Your task to perform on an android device: toggle notification dots Image 0: 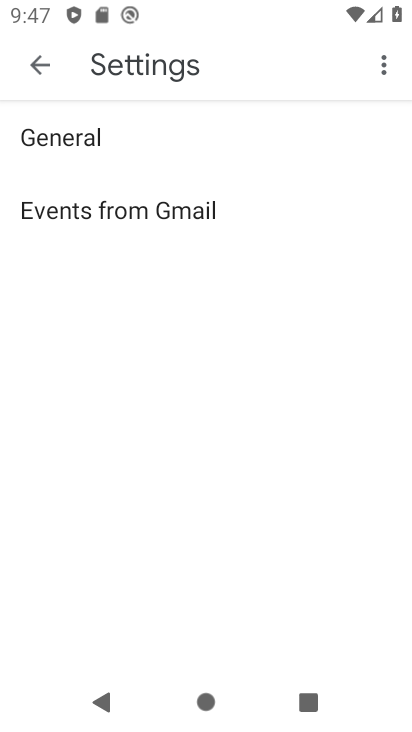
Step 0: press home button
Your task to perform on an android device: toggle notification dots Image 1: 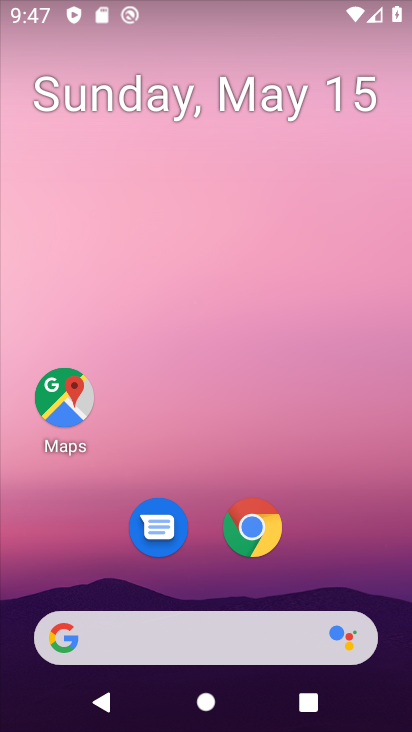
Step 1: drag from (157, 611) to (259, 141)
Your task to perform on an android device: toggle notification dots Image 2: 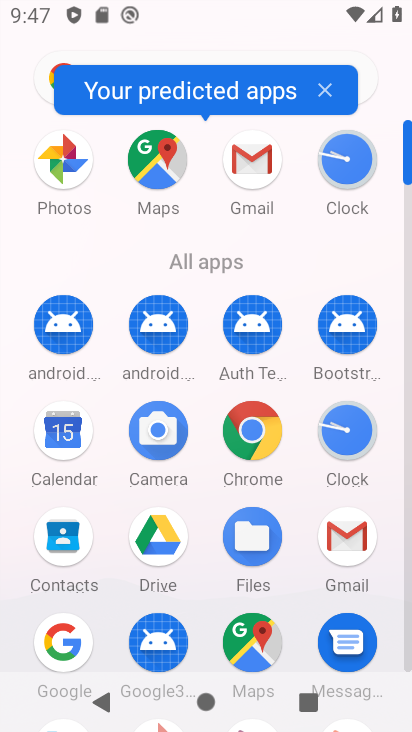
Step 2: drag from (253, 621) to (258, 412)
Your task to perform on an android device: toggle notification dots Image 3: 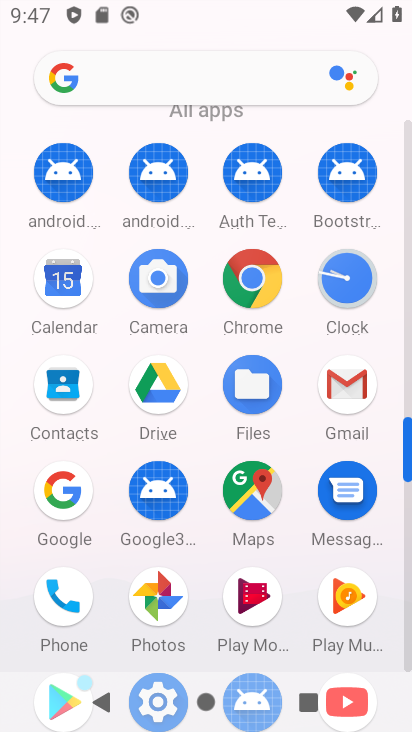
Step 3: drag from (186, 648) to (223, 475)
Your task to perform on an android device: toggle notification dots Image 4: 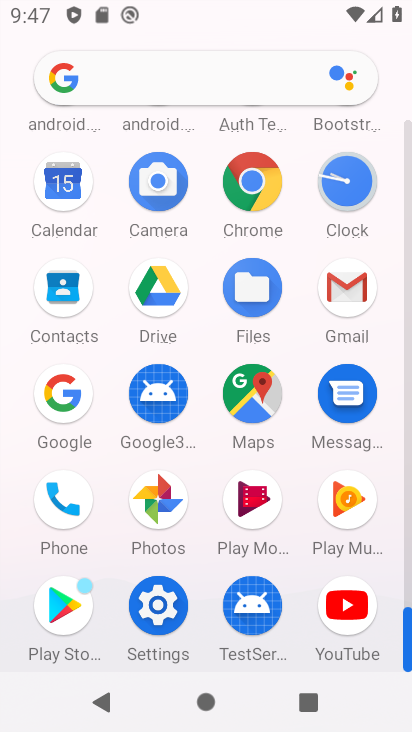
Step 4: click (156, 616)
Your task to perform on an android device: toggle notification dots Image 5: 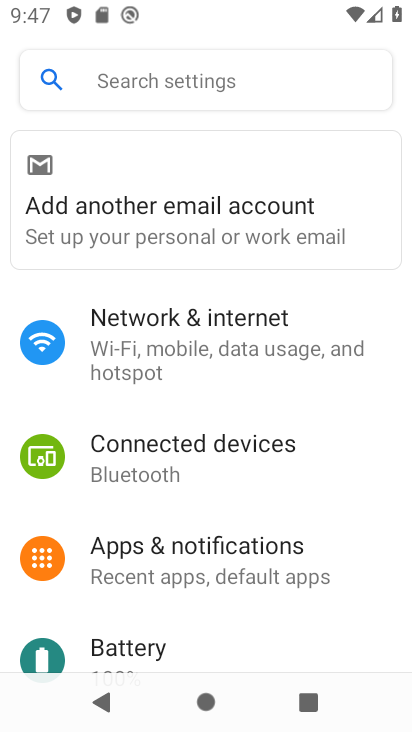
Step 5: click (219, 564)
Your task to perform on an android device: toggle notification dots Image 6: 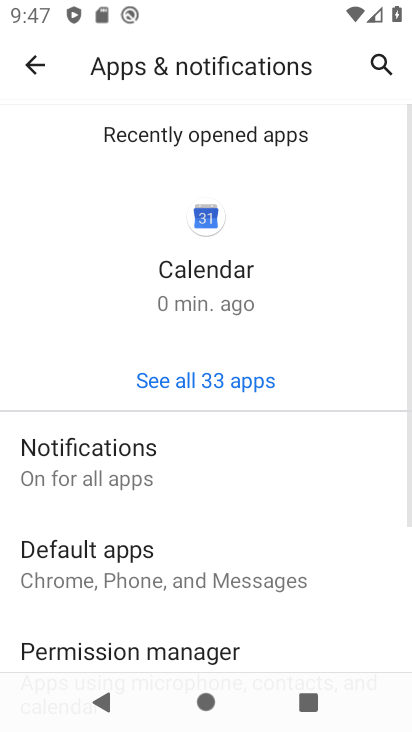
Step 6: drag from (214, 582) to (337, 234)
Your task to perform on an android device: toggle notification dots Image 7: 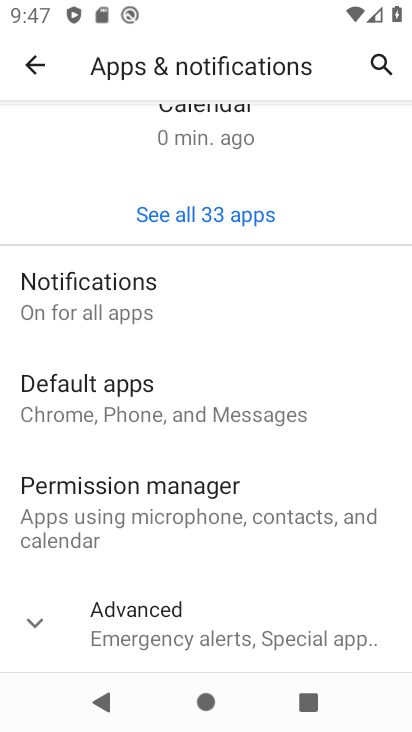
Step 7: click (163, 325)
Your task to perform on an android device: toggle notification dots Image 8: 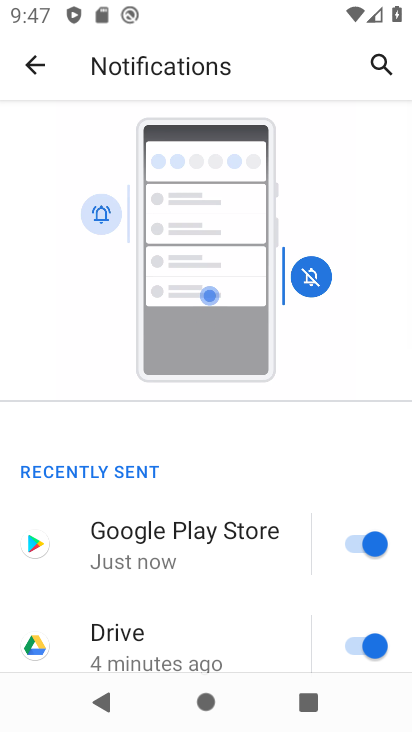
Step 8: drag from (207, 655) to (284, 208)
Your task to perform on an android device: toggle notification dots Image 9: 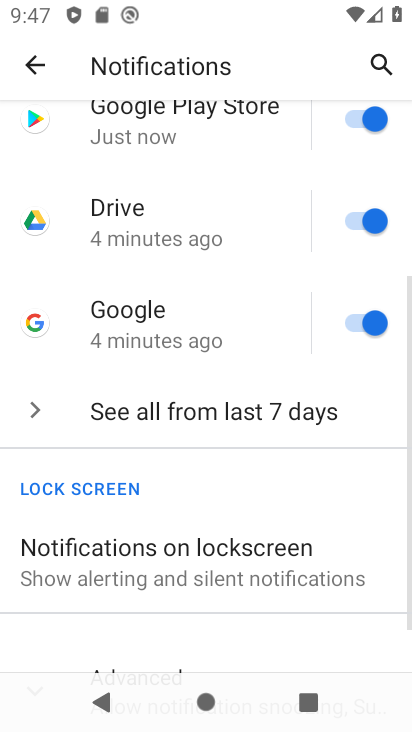
Step 9: drag from (209, 582) to (311, 249)
Your task to perform on an android device: toggle notification dots Image 10: 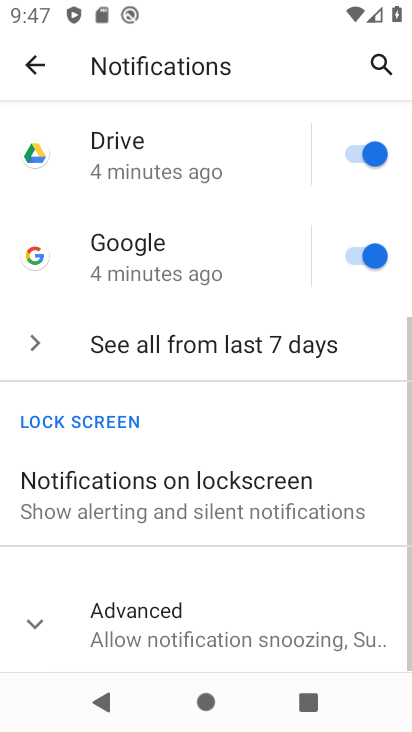
Step 10: click (244, 631)
Your task to perform on an android device: toggle notification dots Image 11: 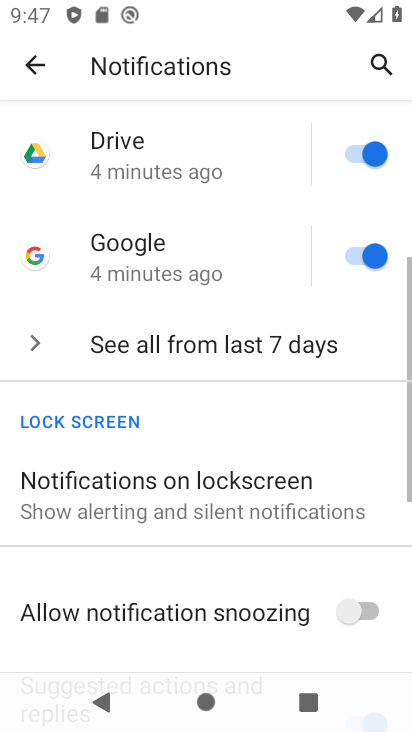
Step 11: drag from (163, 615) to (282, 215)
Your task to perform on an android device: toggle notification dots Image 12: 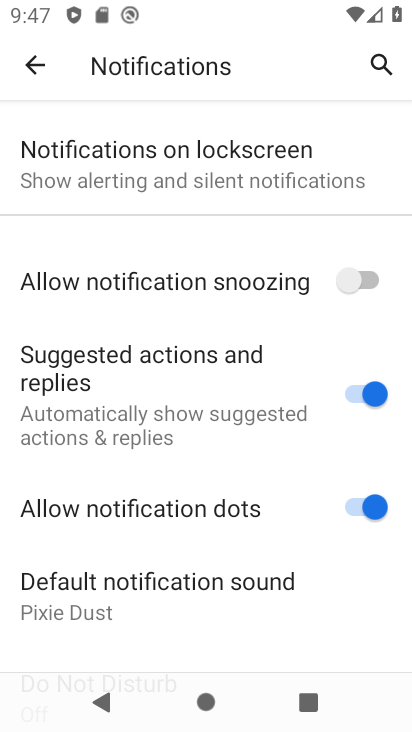
Step 12: click (353, 499)
Your task to perform on an android device: toggle notification dots Image 13: 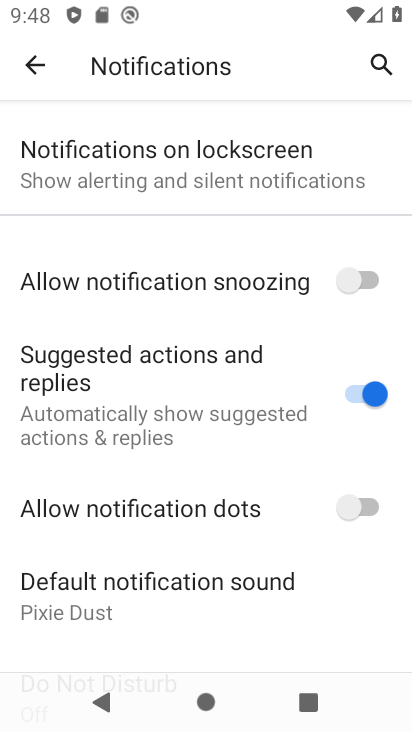
Step 13: task complete